Your task to perform on an android device: Clear all items from cart on ebay. Search for jbl charge 4 on ebay, select the first entry, add it to the cart, then select checkout. Image 0: 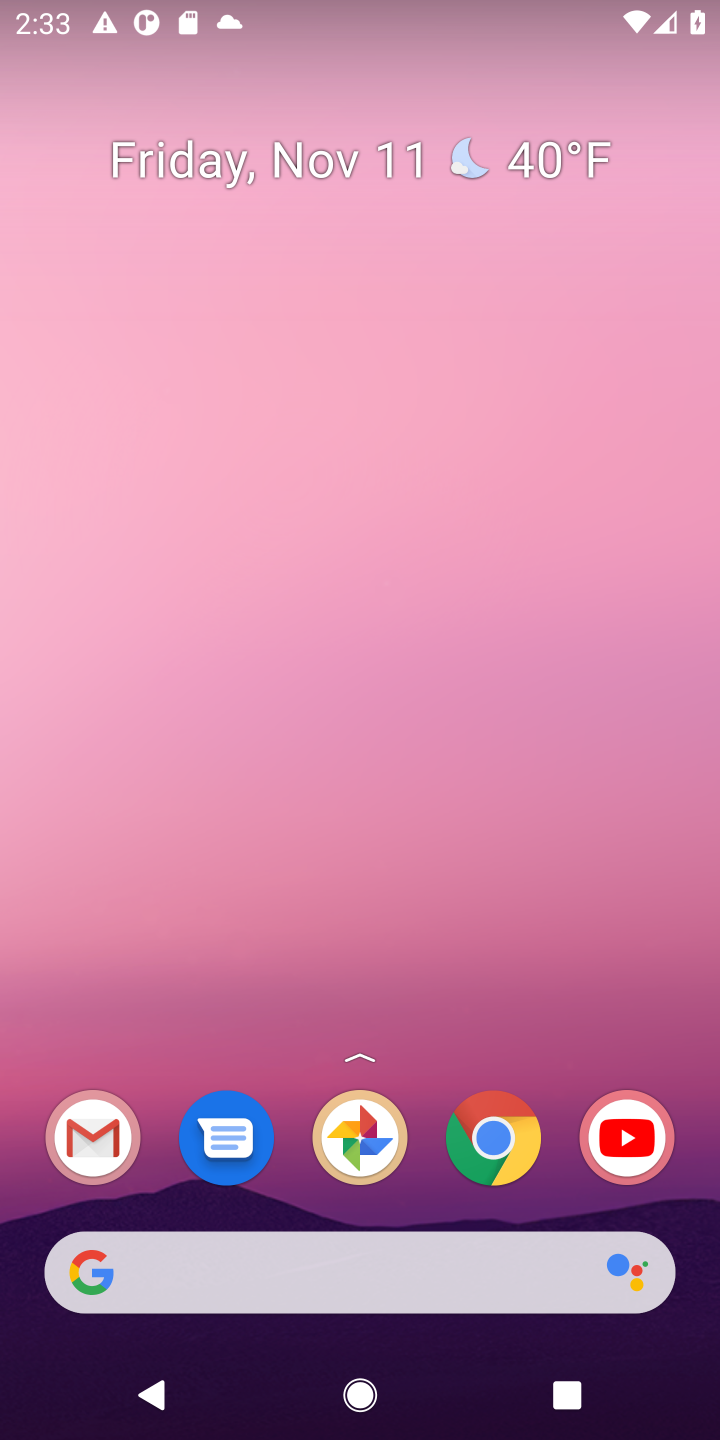
Step 0: click (497, 1138)
Your task to perform on an android device: Clear all items from cart on ebay. Search for jbl charge 4 on ebay, select the first entry, add it to the cart, then select checkout. Image 1: 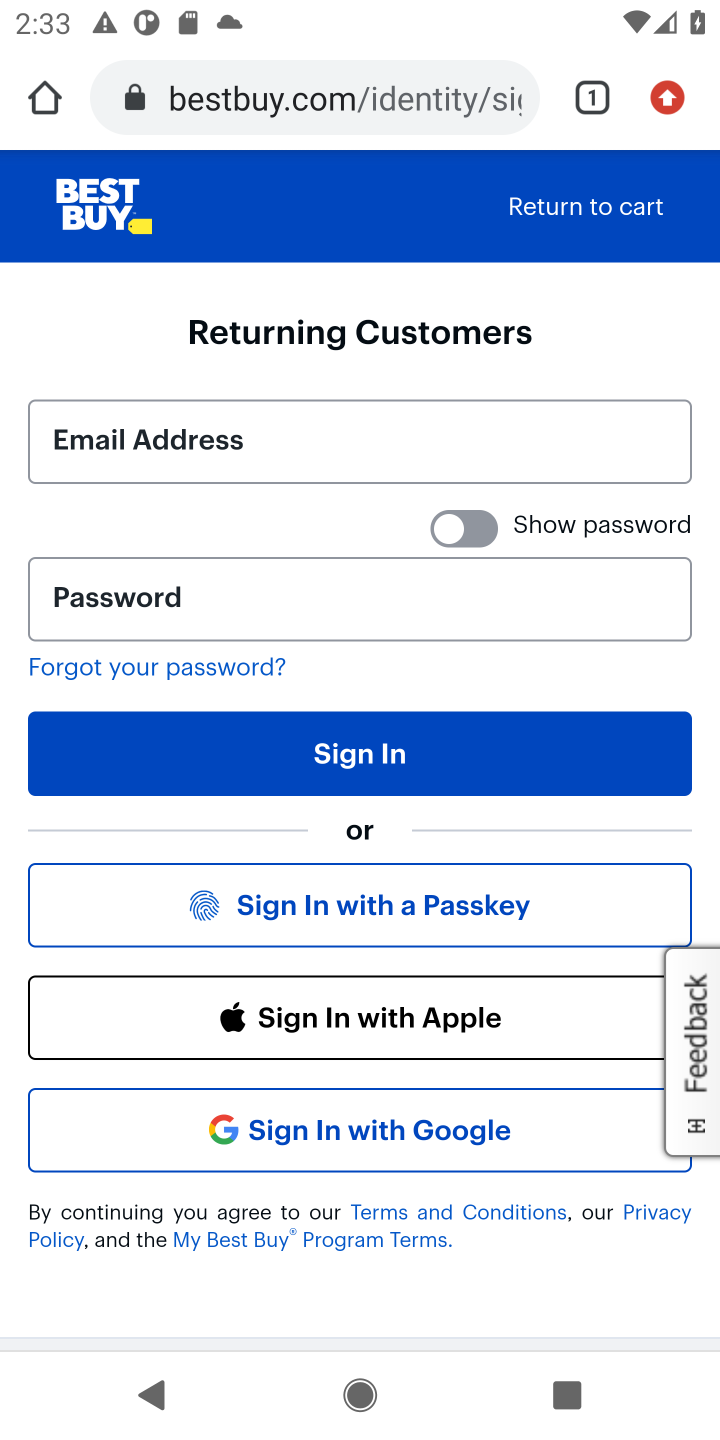
Step 1: click (467, 97)
Your task to perform on an android device: Clear all items from cart on ebay. Search for jbl charge 4 on ebay, select the first entry, add it to the cart, then select checkout. Image 2: 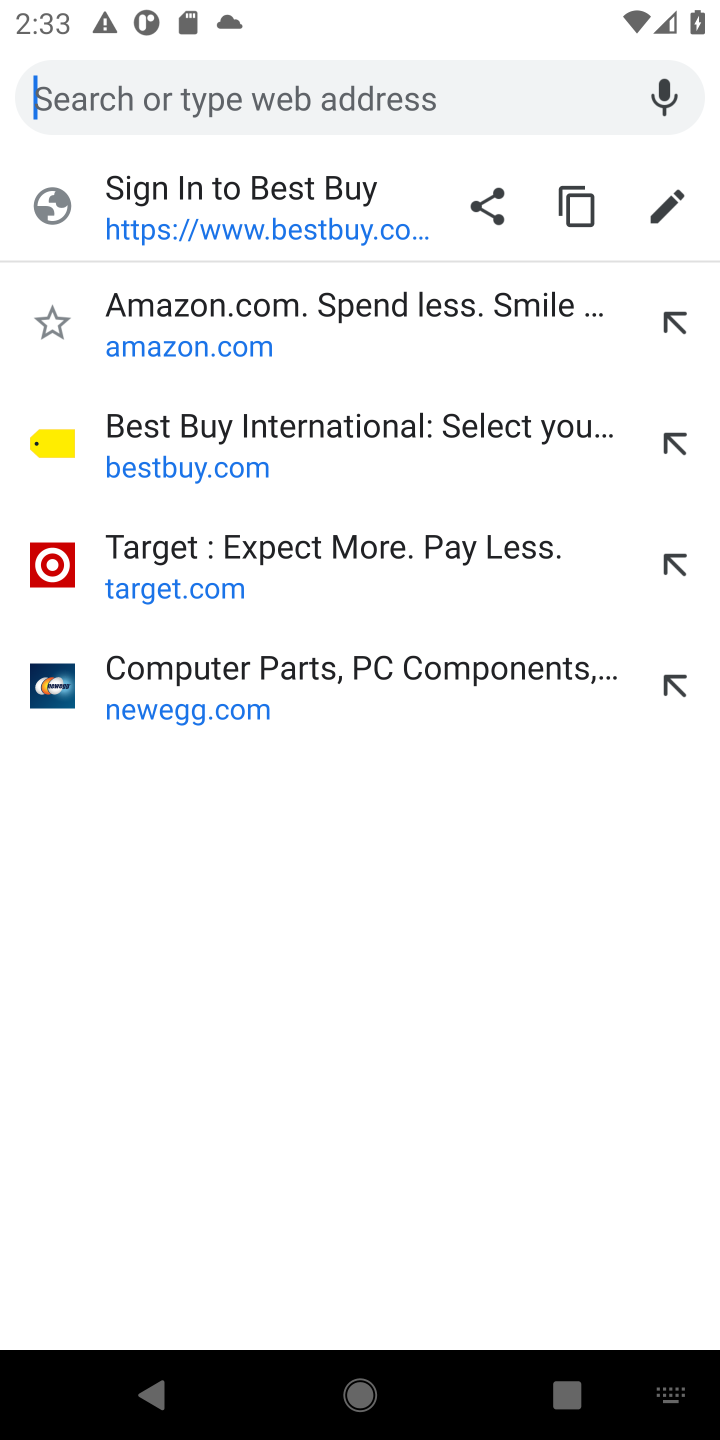
Step 2: type "ebay"
Your task to perform on an android device: Clear all items from cart on ebay. Search for jbl charge 4 on ebay, select the first entry, add it to the cart, then select checkout. Image 3: 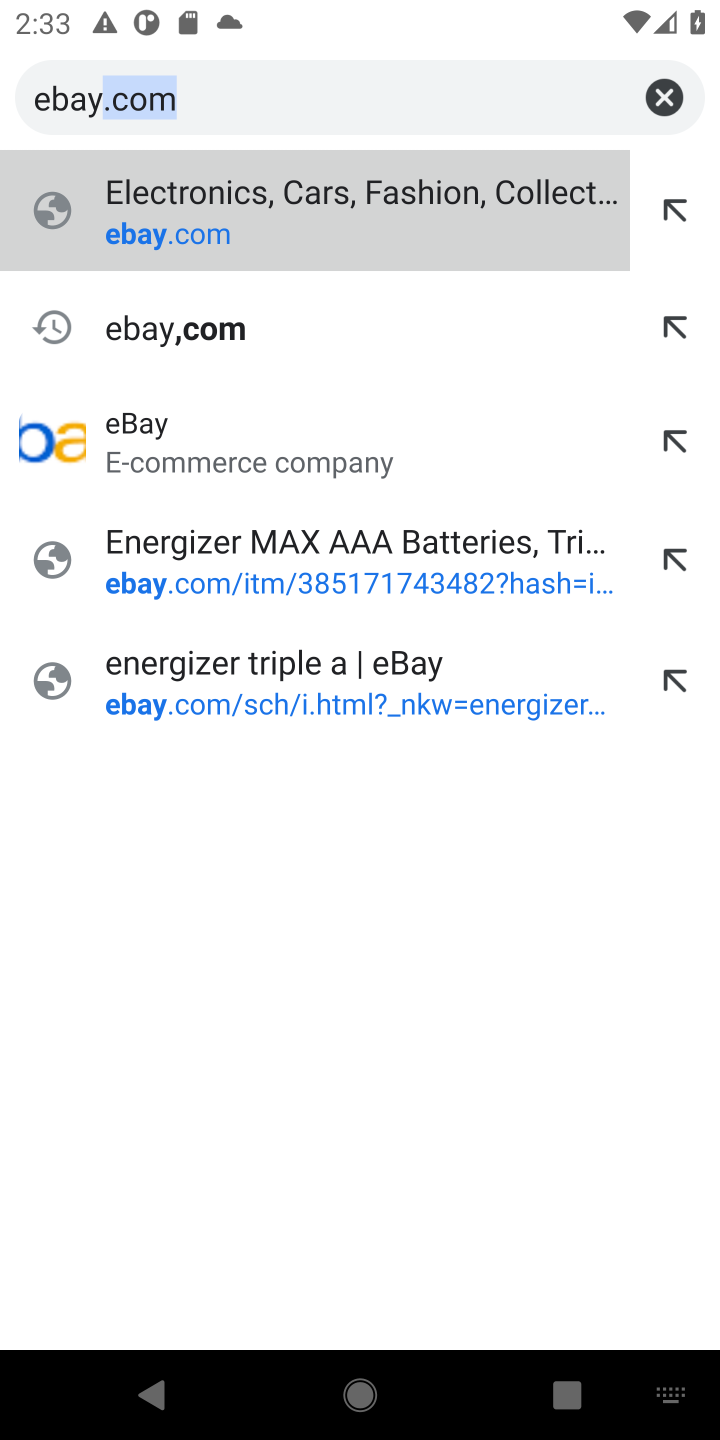
Step 3: press enter
Your task to perform on an android device: Clear all items from cart on ebay. Search for jbl charge 4 on ebay, select the first entry, add it to the cart, then select checkout. Image 4: 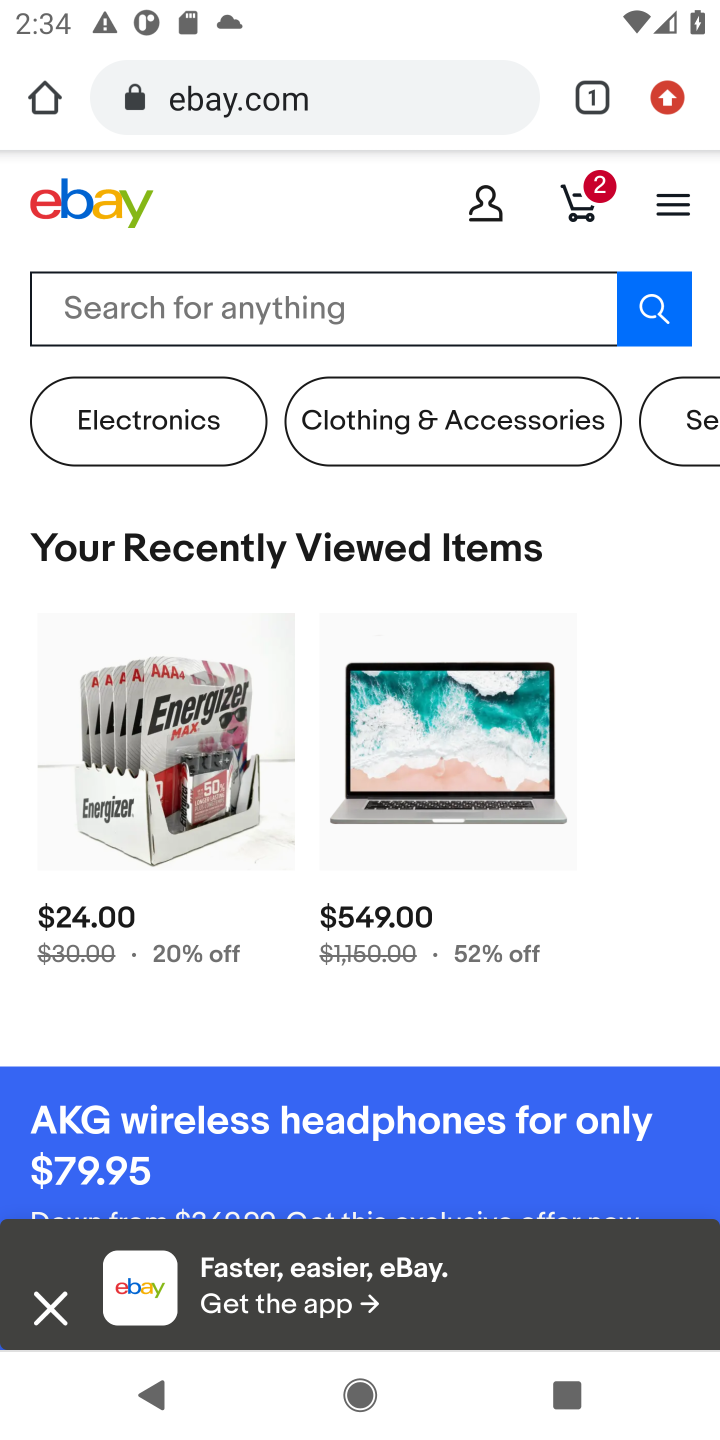
Step 4: click (584, 210)
Your task to perform on an android device: Clear all items from cart on ebay. Search for jbl charge 4 on ebay, select the first entry, add it to the cart, then select checkout. Image 5: 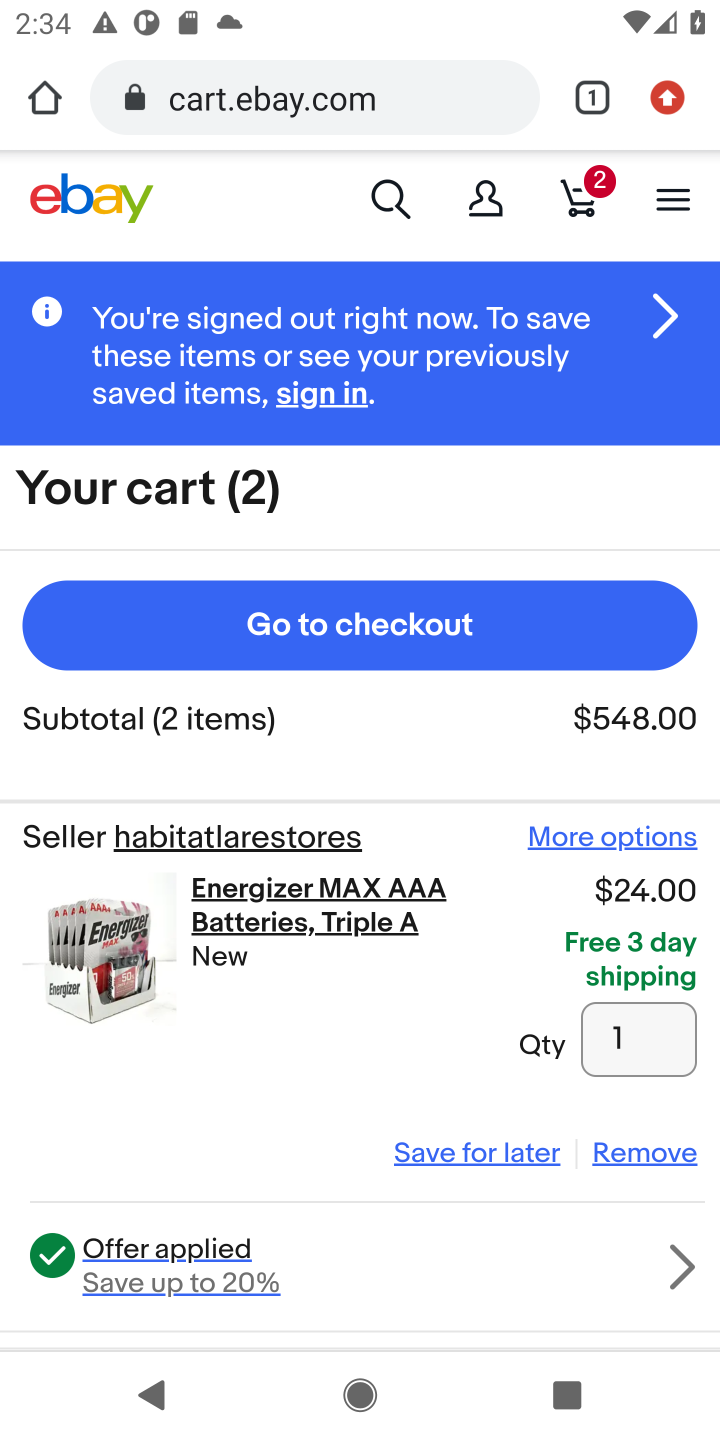
Step 5: click (644, 1151)
Your task to perform on an android device: Clear all items from cart on ebay. Search for jbl charge 4 on ebay, select the first entry, add it to the cart, then select checkout. Image 6: 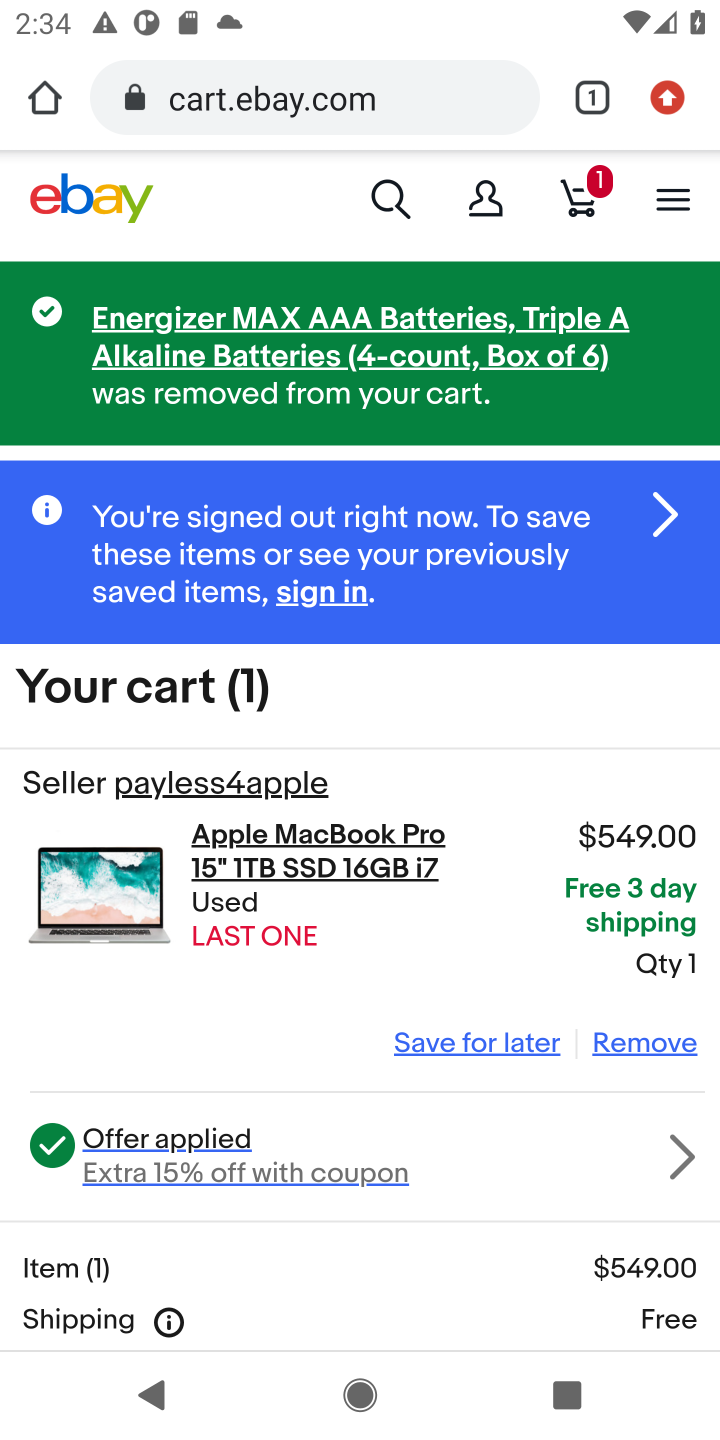
Step 6: click (650, 1040)
Your task to perform on an android device: Clear all items from cart on ebay. Search for jbl charge 4 on ebay, select the first entry, add it to the cart, then select checkout. Image 7: 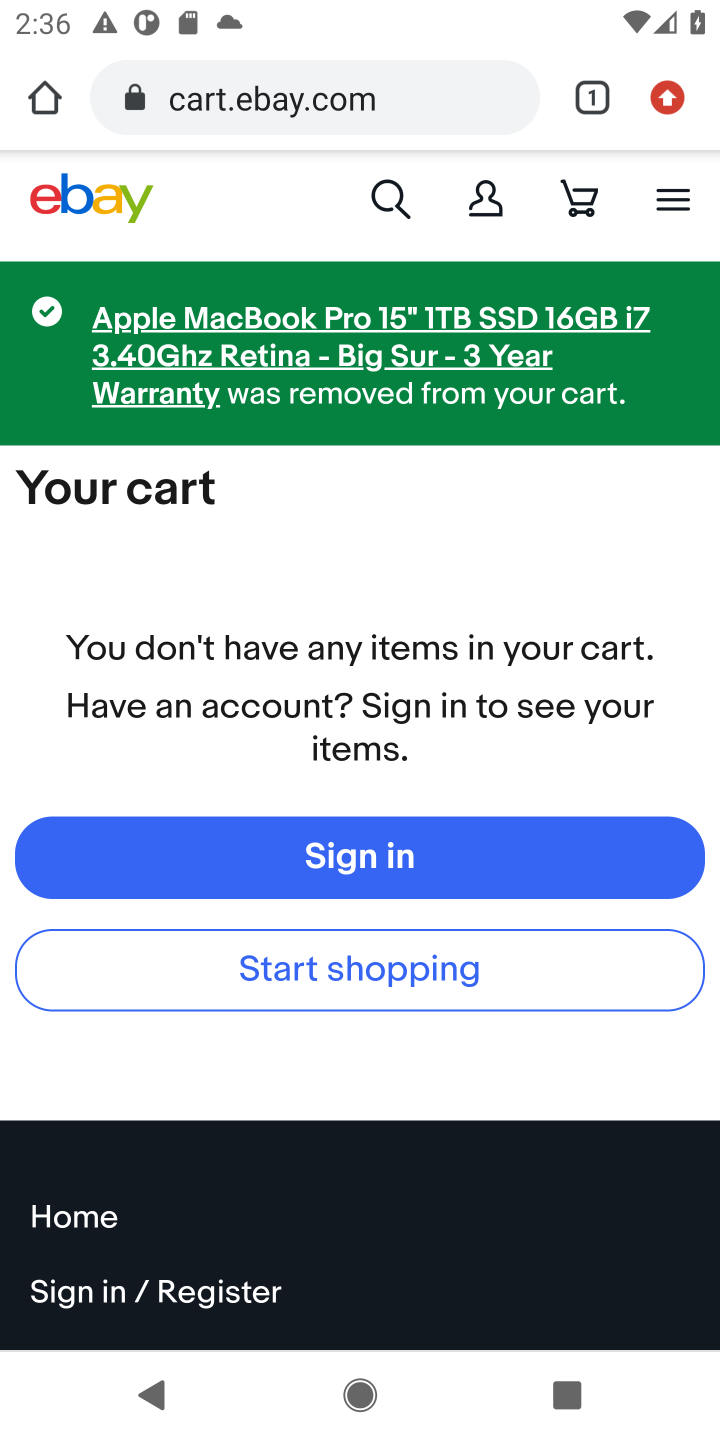
Step 7: click (391, 201)
Your task to perform on an android device: Clear all items from cart on ebay. Search for jbl charge 4 on ebay, select the first entry, add it to the cart, then select checkout. Image 8: 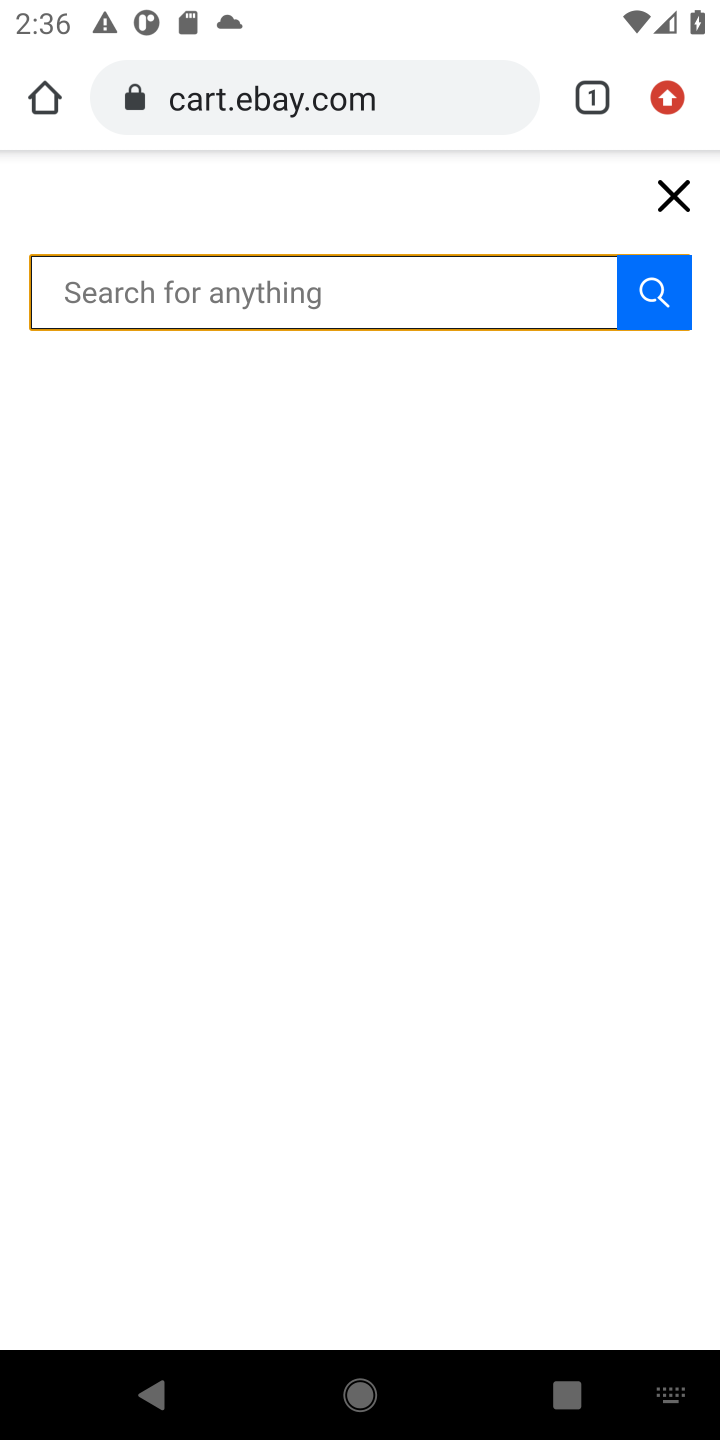
Step 8: type "jbl charge 4"
Your task to perform on an android device: Clear all items from cart on ebay. Search for jbl charge 4 on ebay, select the first entry, add it to the cart, then select checkout. Image 9: 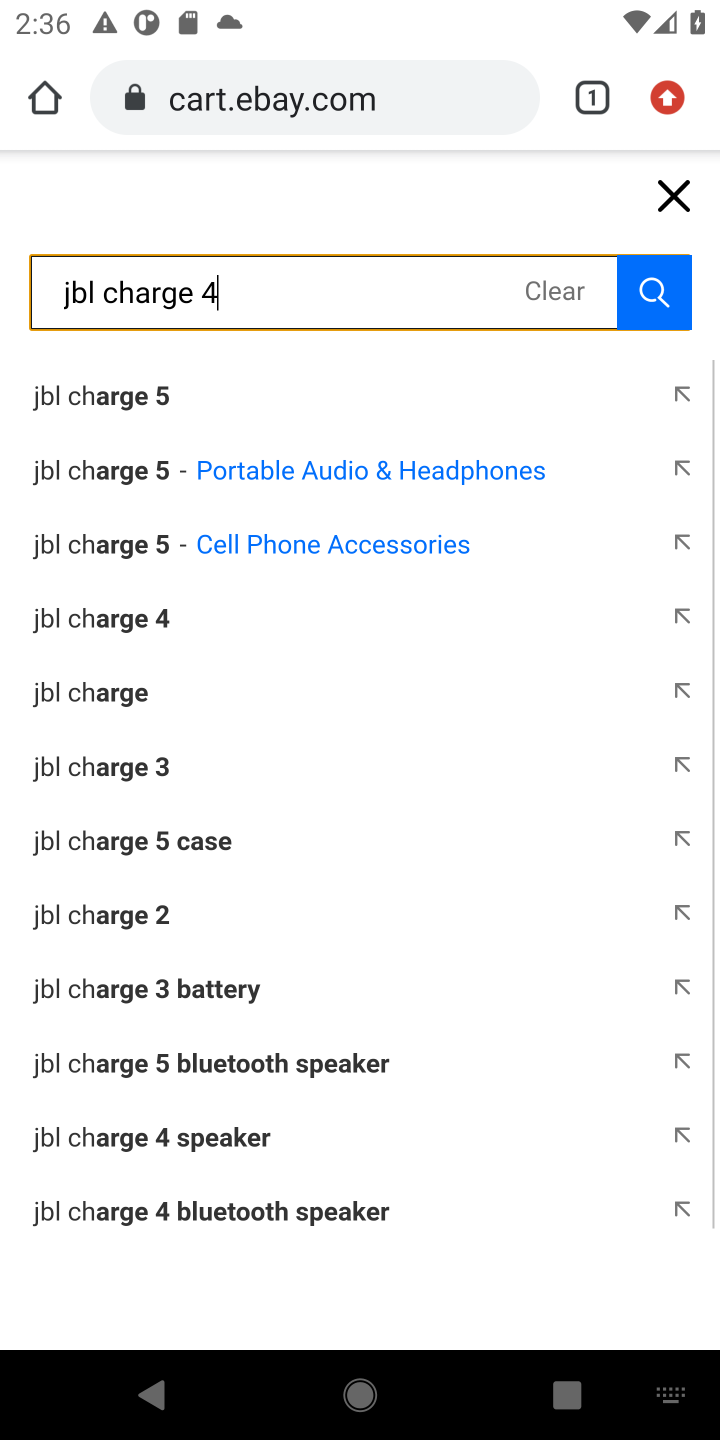
Step 9: press enter
Your task to perform on an android device: Clear all items from cart on ebay. Search for jbl charge 4 on ebay, select the first entry, add it to the cart, then select checkout. Image 10: 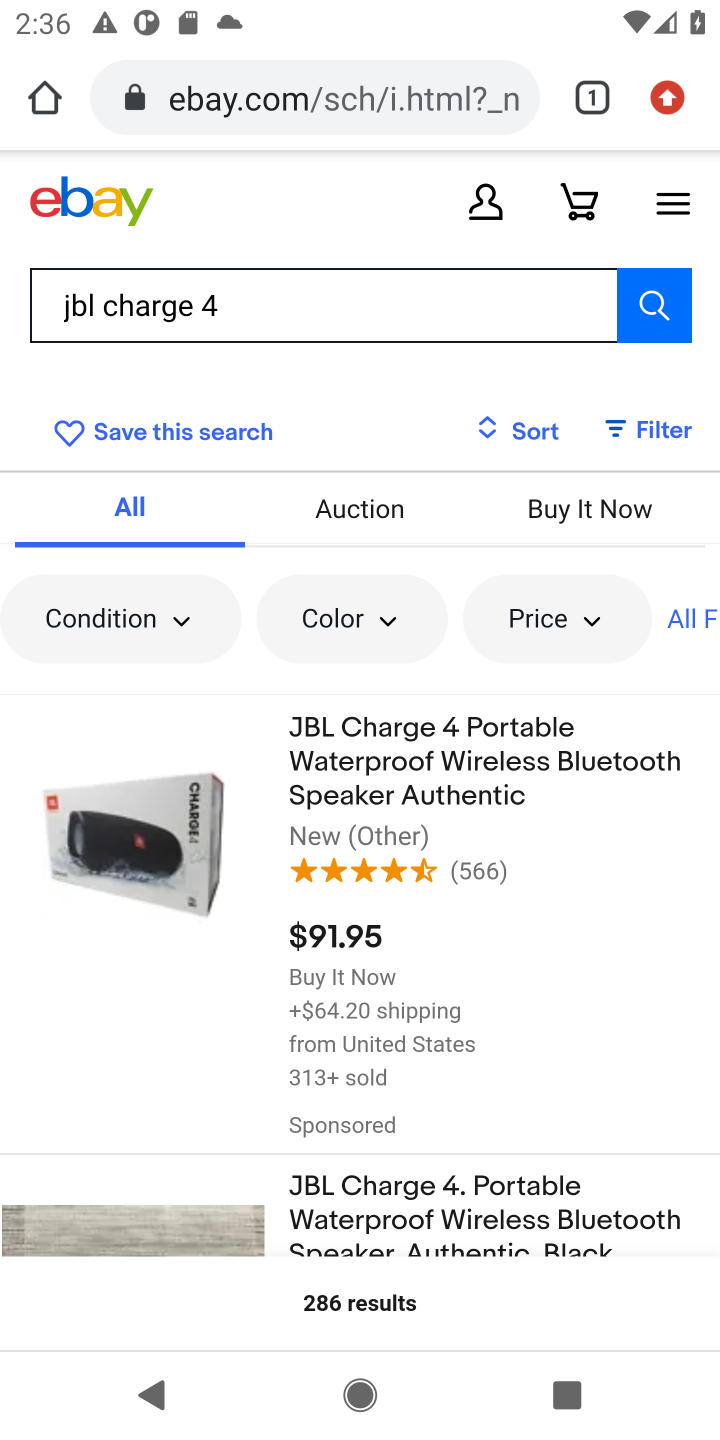
Step 10: click (160, 810)
Your task to perform on an android device: Clear all items from cart on ebay. Search for jbl charge 4 on ebay, select the first entry, add it to the cart, then select checkout. Image 11: 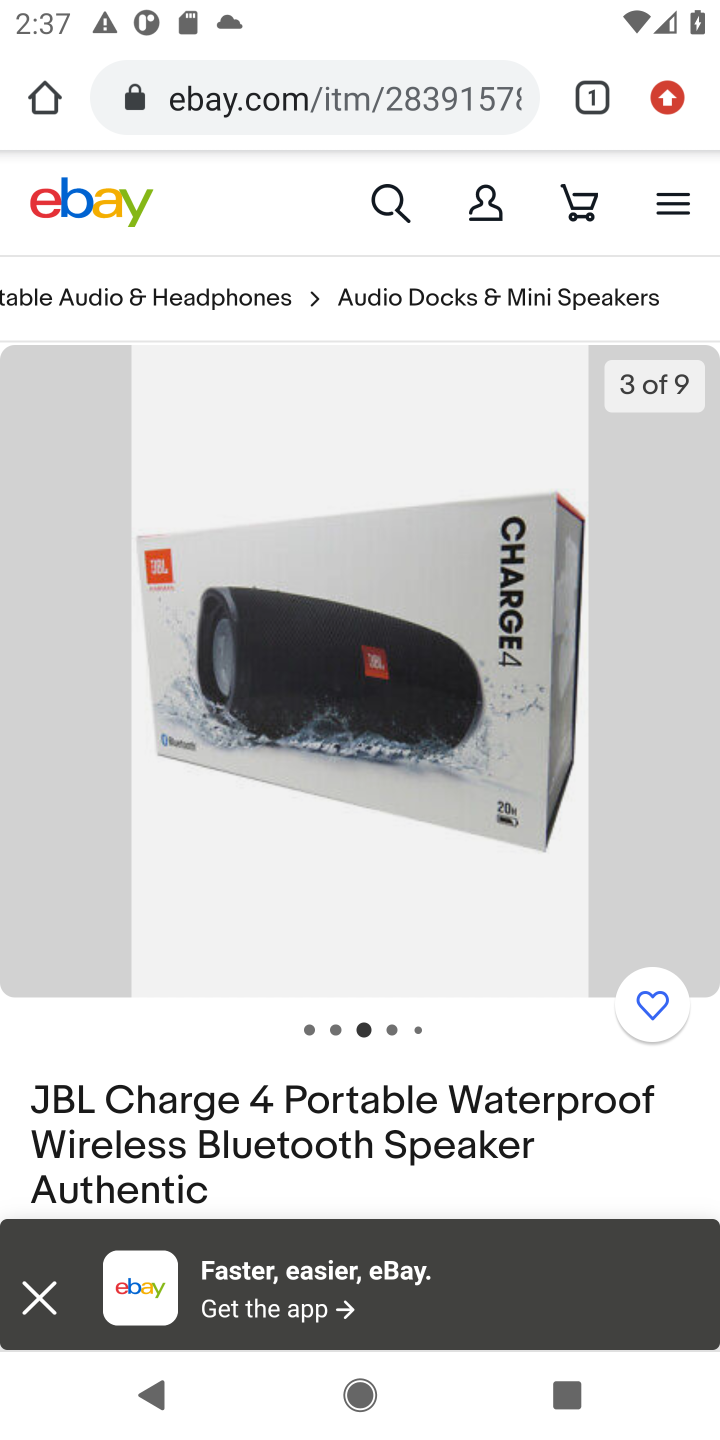
Step 11: click (155, 766)
Your task to perform on an android device: Clear all items from cart on ebay. Search for jbl charge 4 on ebay, select the first entry, add it to the cart, then select checkout. Image 12: 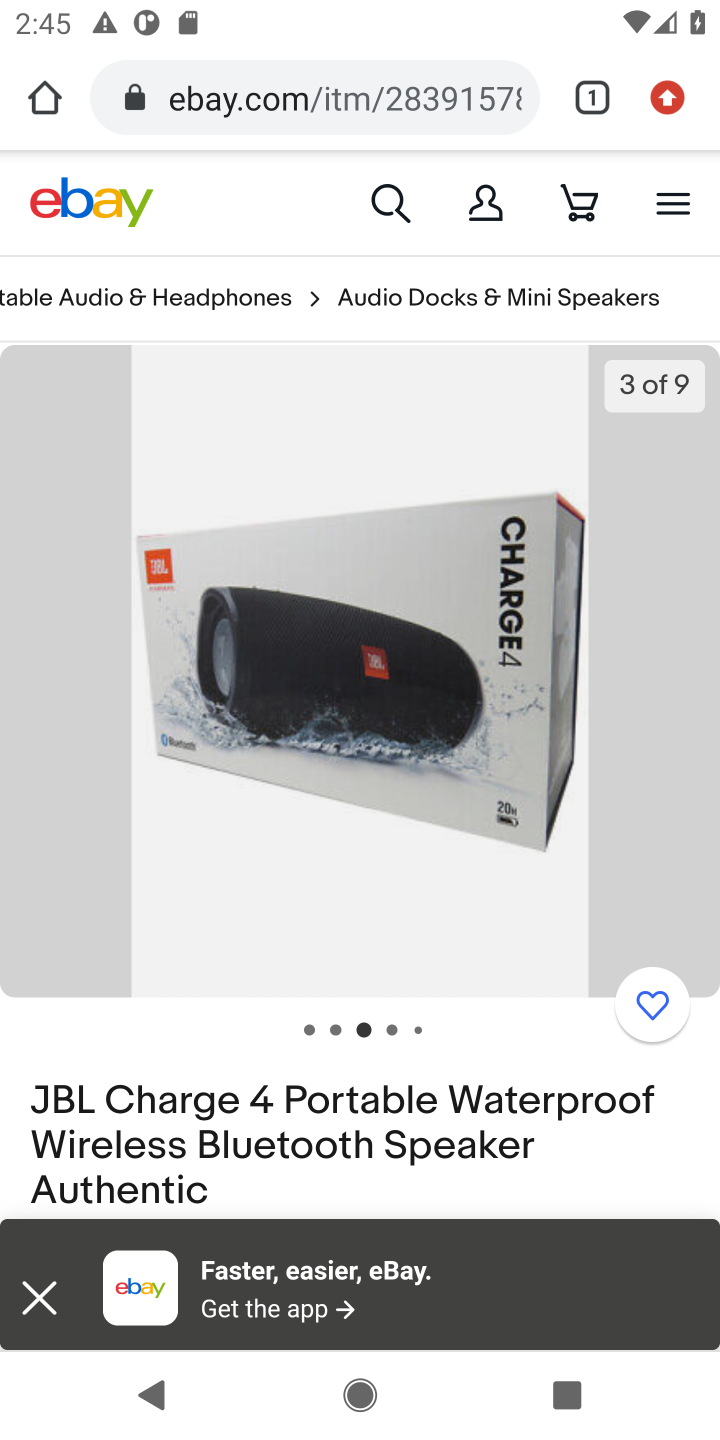
Step 12: click (517, 624)
Your task to perform on an android device: Clear all items from cart on ebay. Search for jbl charge 4 on ebay, select the first entry, add it to the cart, then select checkout. Image 13: 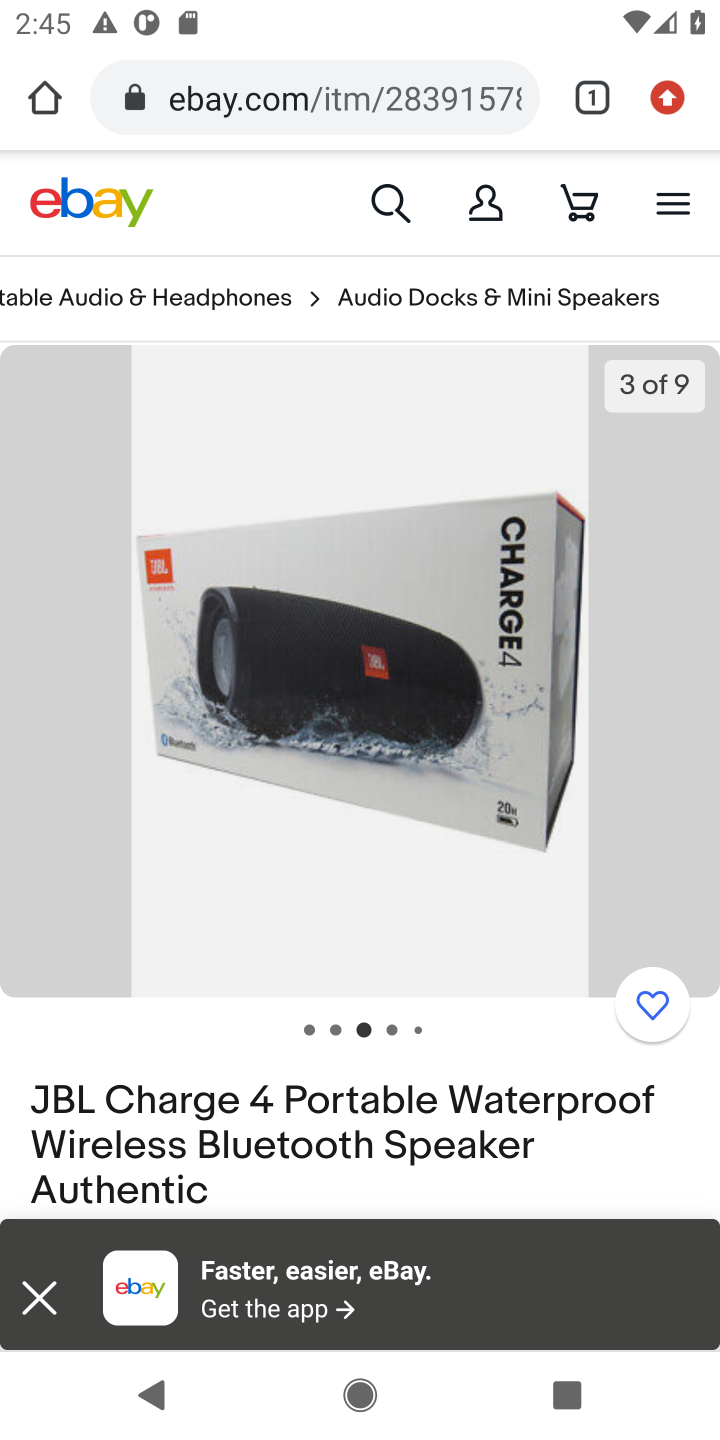
Step 13: drag from (563, 824) to (467, 353)
Your task to perform on an android device: Clear all items from cart on ebay. Search for jbl charge 4 on ebay, select the first entry, add it to the cart, then select checkout. Image 14: 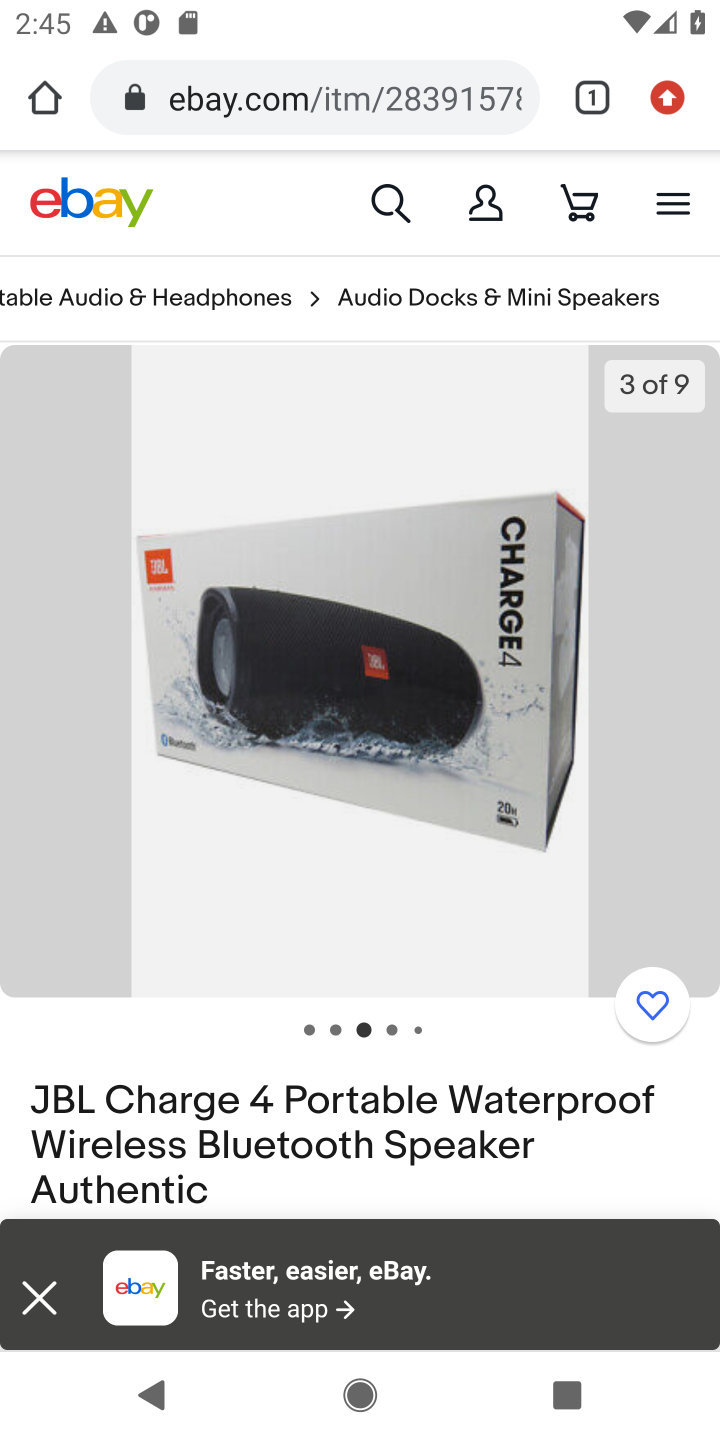
Step 14: drag from (445, 772) to (430, 361)
Your task to perform on an android device: Clear all items from cart on ebay. Search for jbl charge 4 on ebay, select the first entry, add it to the cart, then select checkout. Image 15: 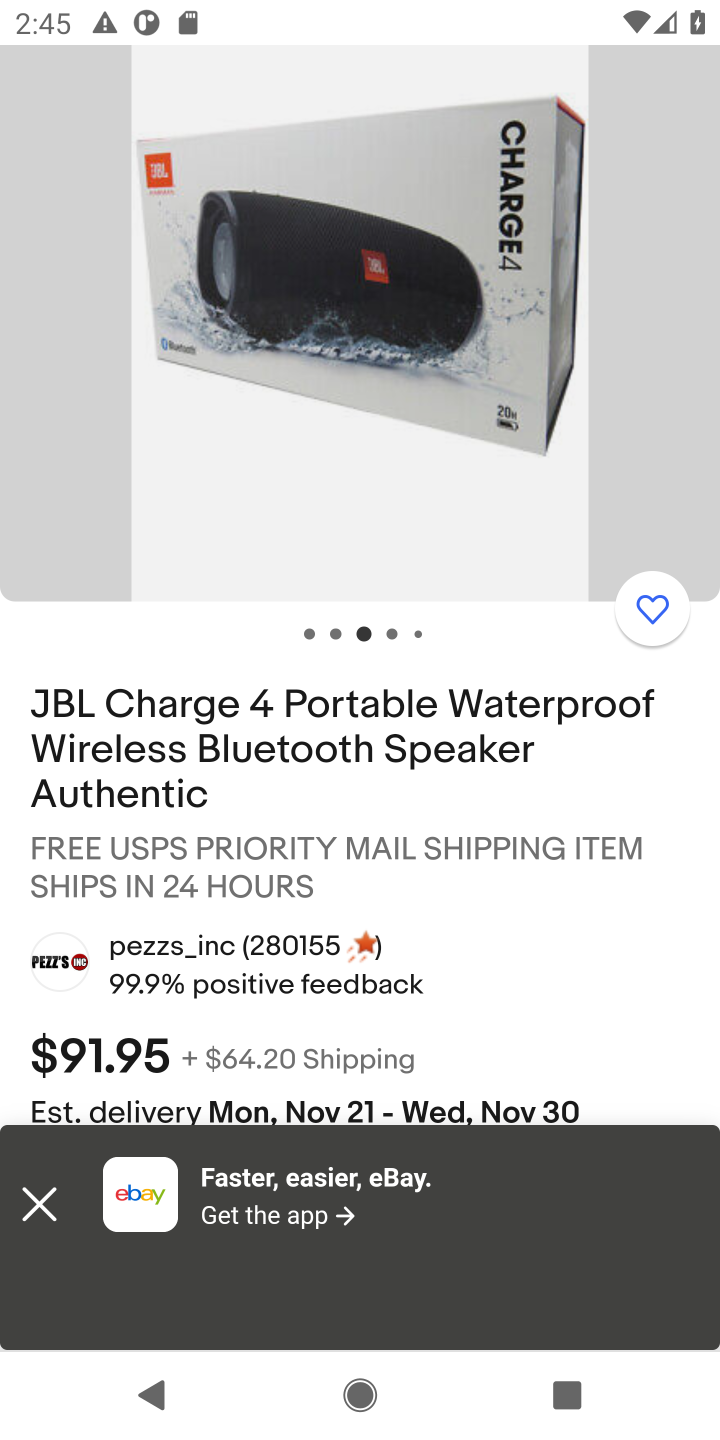
Step 15: drag from (543, 922) to (528, 545)
Your task to perform on an android device: Clear all items from cart on ebay. Search for jbl charge 4 on ebay, select the first entry, add it to the cart, then select checkout. Image 16: 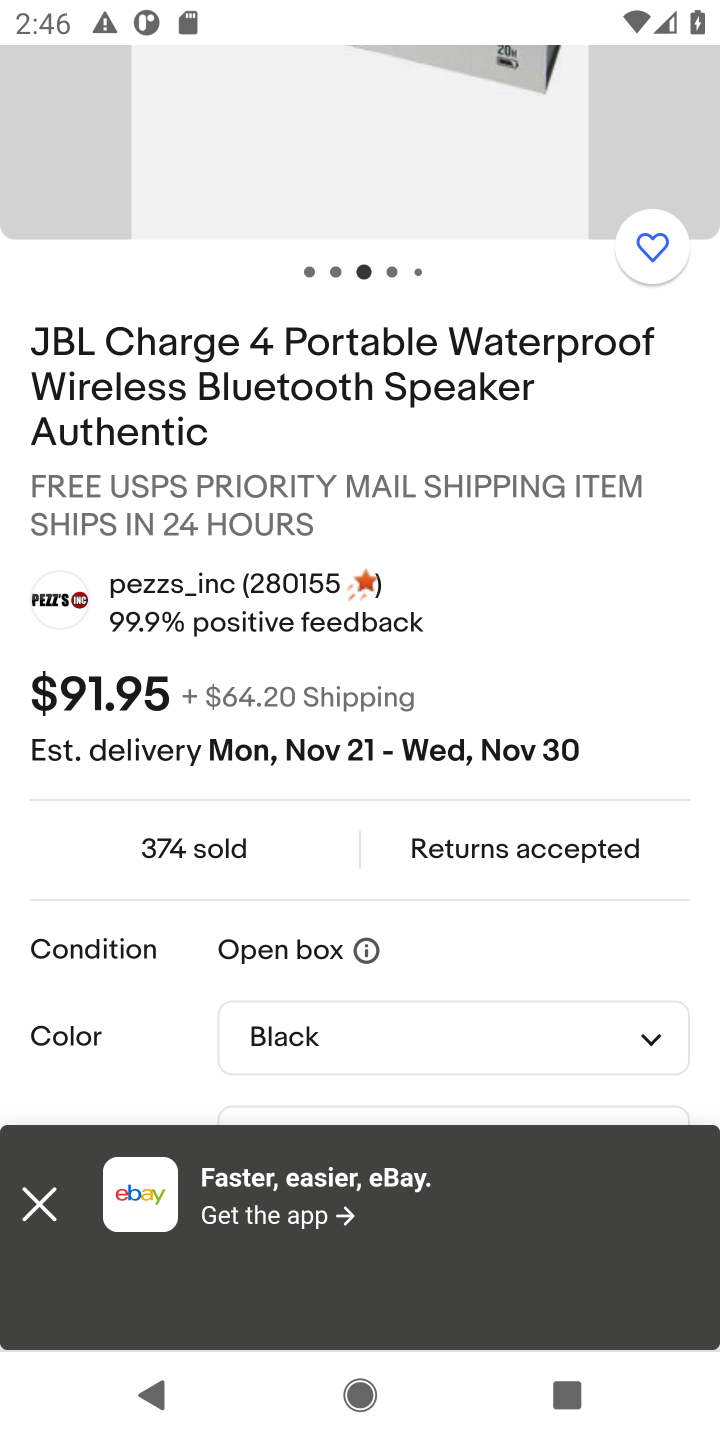
Step 16: press back button
Your task to perform on an android device: Clear all items from cart on ebay. Search for jbl charge 4 on ebay, select the first entry, add it to the cart, then select checkout. Image 17: 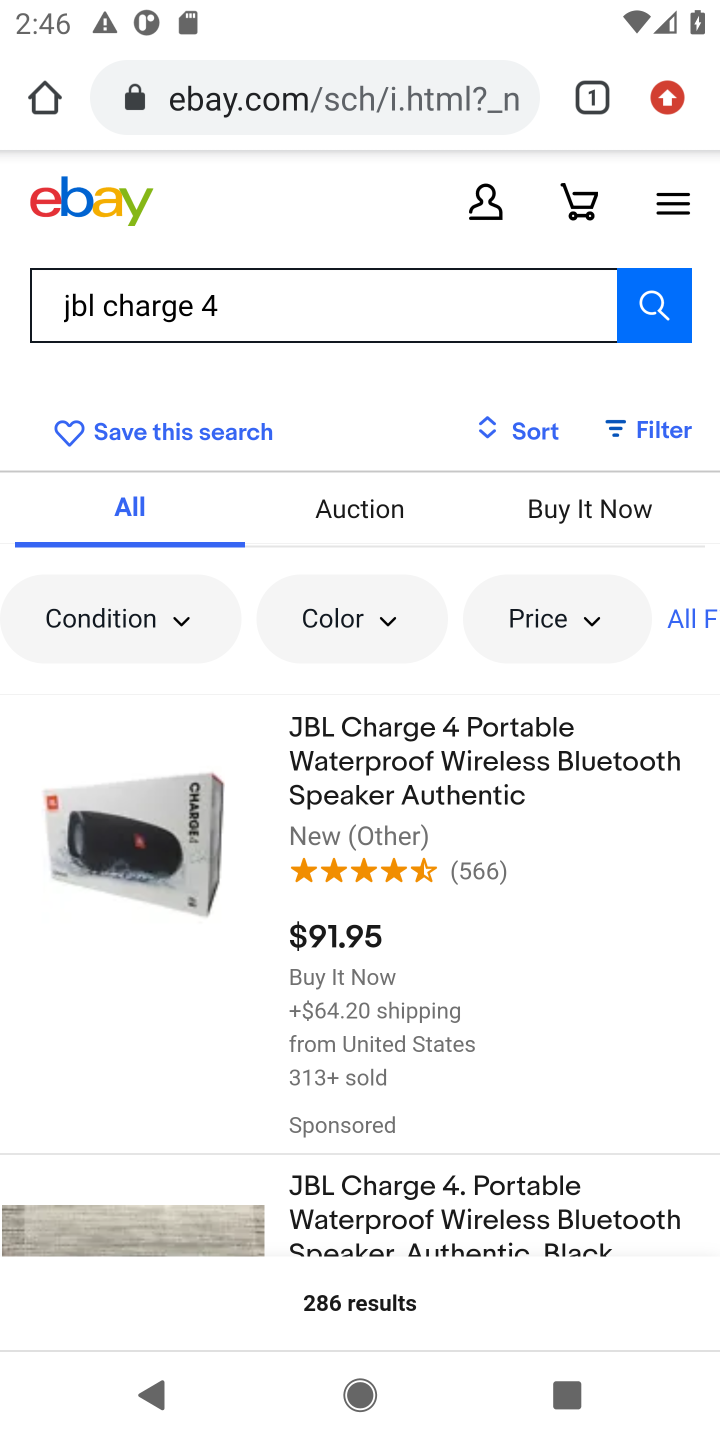
Step 17: click (193, 824)
Your task to perform on an android device: Clear all items from cart on ebay. Search for jbl charge 4 on ebay, select the first entry, add it to the cart, then select checkout. Image 18: 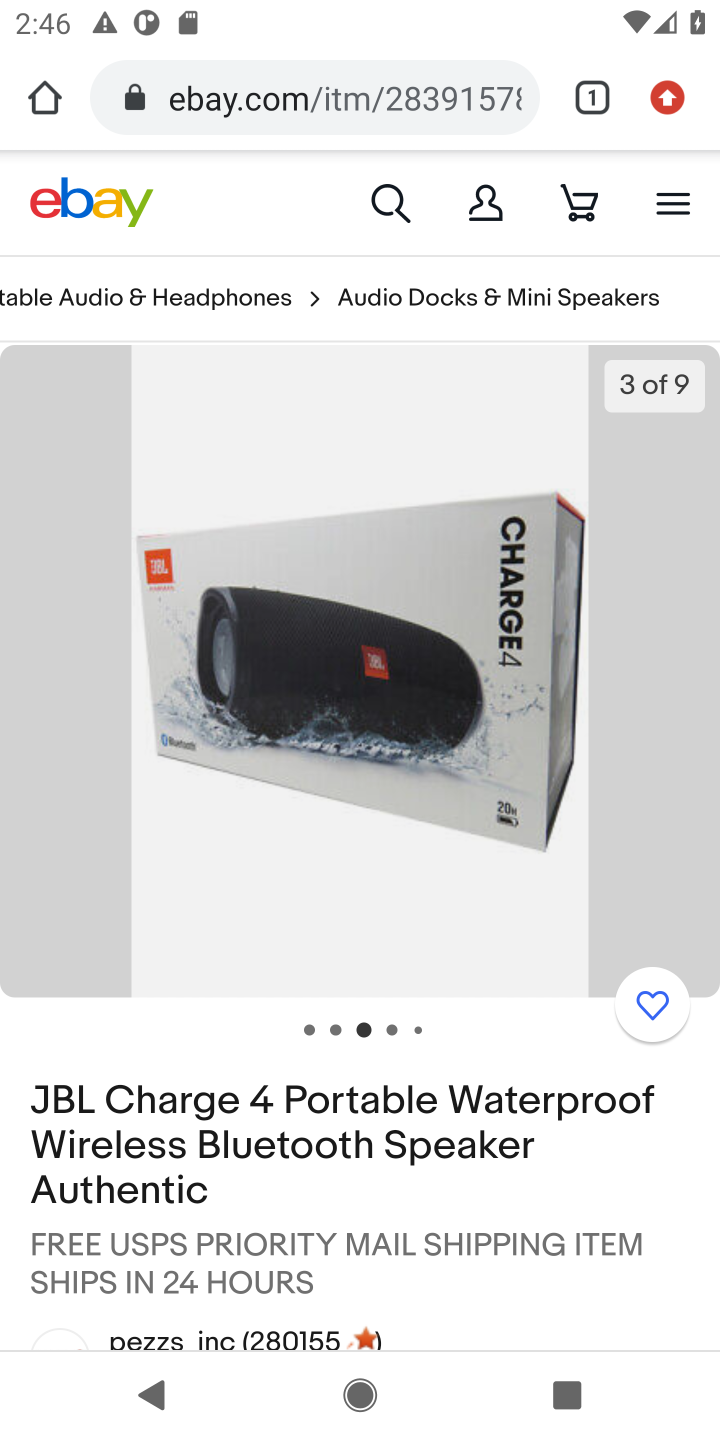
Step 18: drag from (373, 1098) to (444, 653)
Your task to perform on an android device: Clear all items from cart on ebay. Search for jbl charge 4 on ebay, select the first entry, add it to the cart, then select checkout. Image 19: 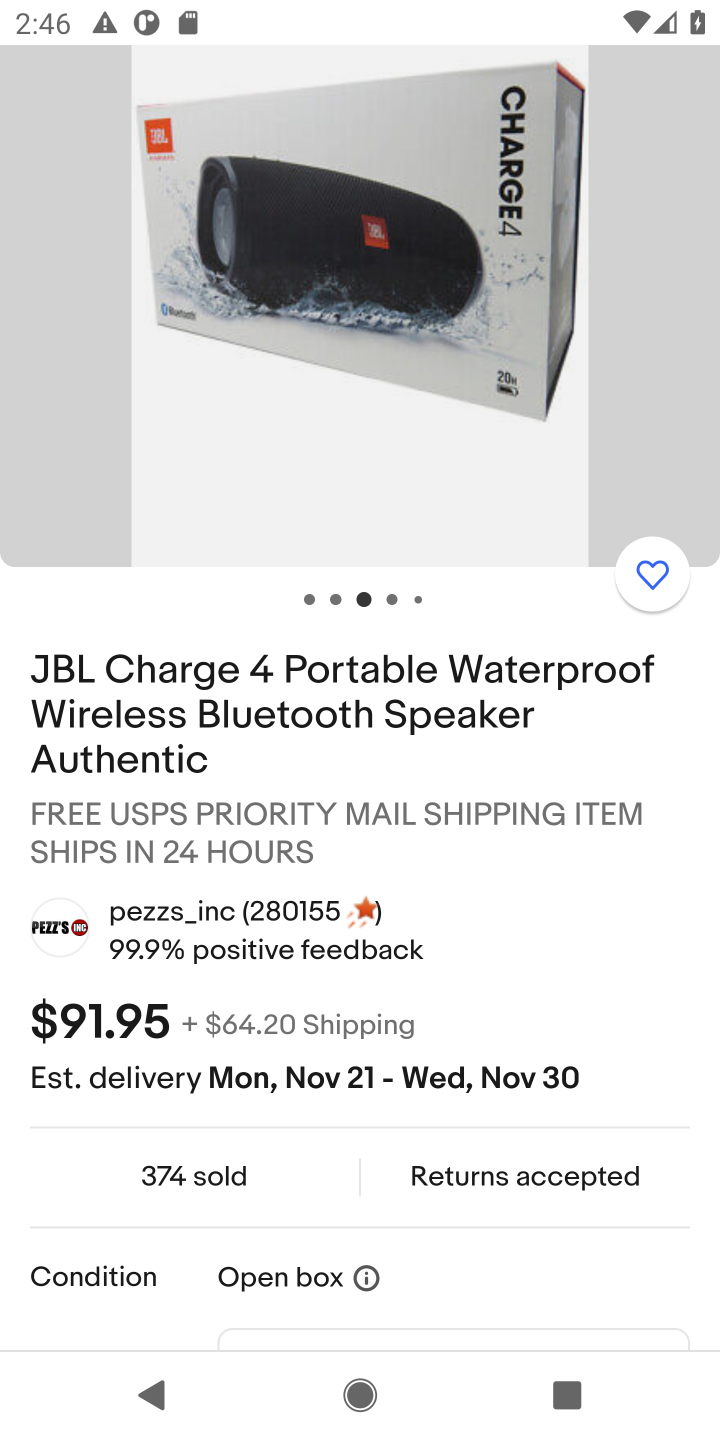
Step 19: drag from (457, 1175) to (491, 741)
Your task to perform on an android device: Clear all items from cart on ebay. Search for jbl charge 4 on ebay, select the first entry, add it to the cart, then select checkout. Image 20: 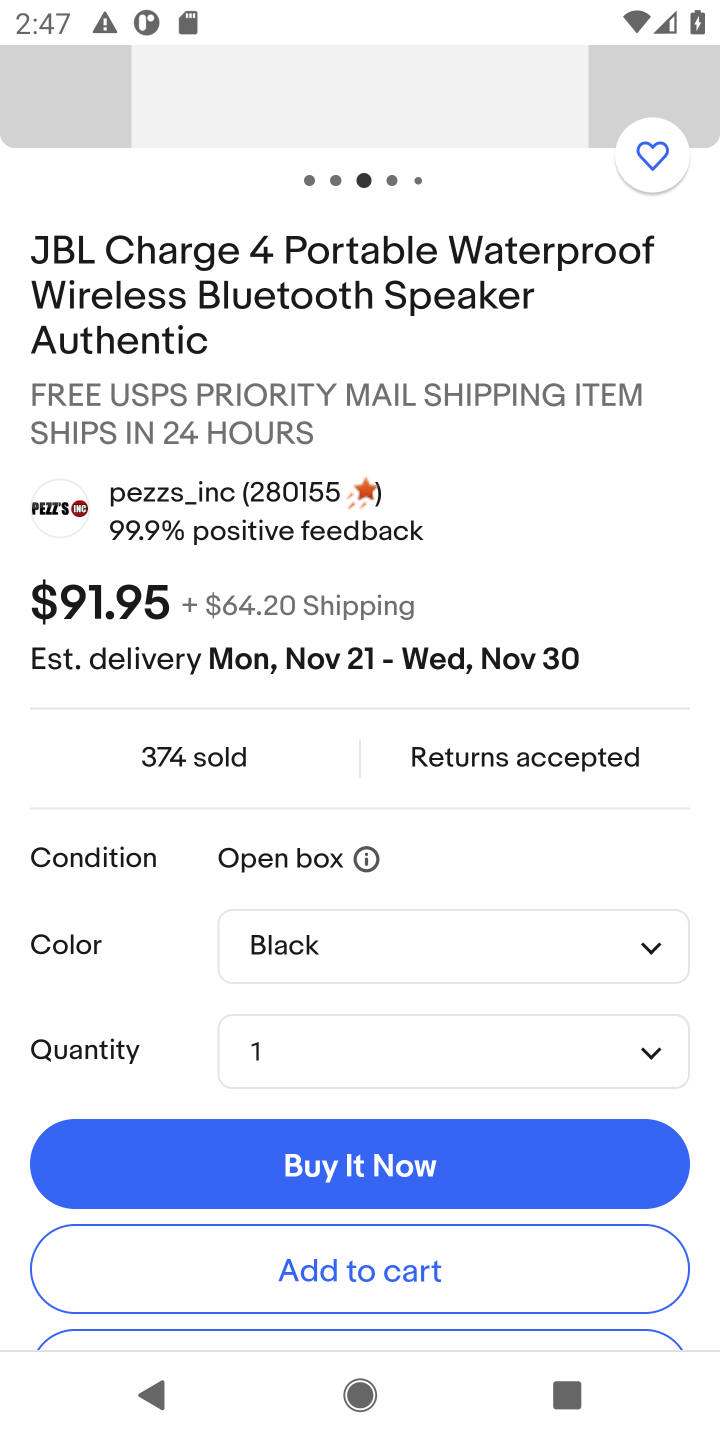
Step 20: click (386, 1267)
Your task to perform on an android device: Clear all items from cart on ebay. Search for jbl charge 4 on ebay, select the first entry, add it to the cart, then select checkout. Image 21: 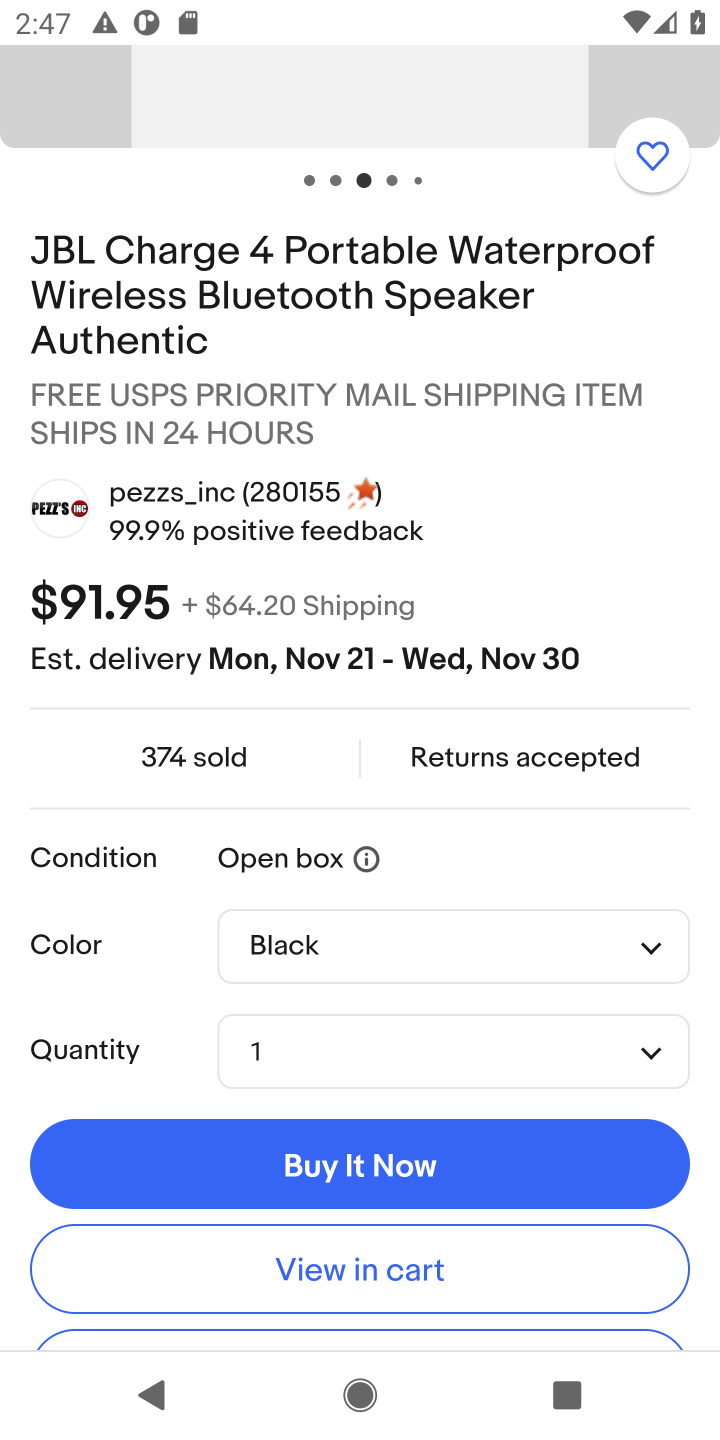
Step 21: click (392, 1263)
Your task to perform on an android device: Clear all items from cart on ebay. Search for jbl charge 4 on ebay, select the first entry, add it to the cart, then select checkout. Image 22: 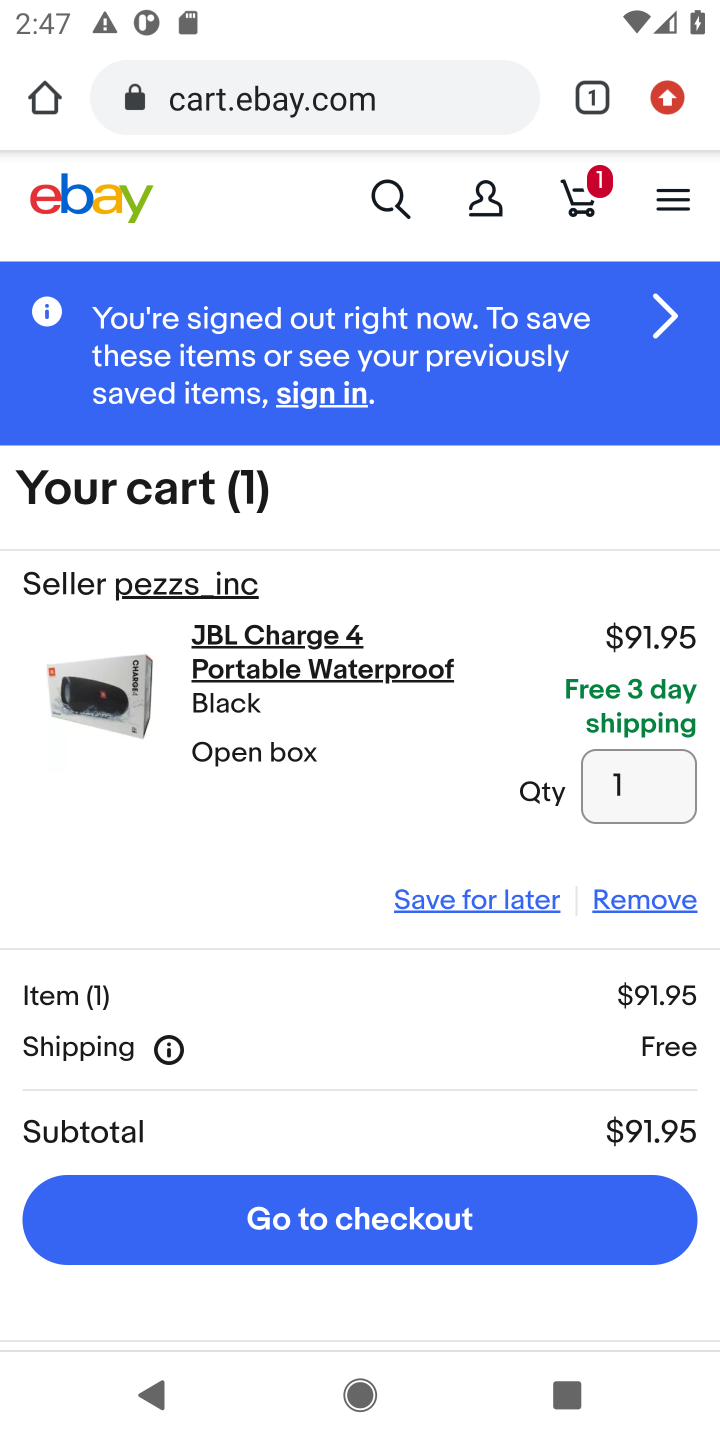
Step 22: click (423, 1217)
Your task to perform on an android device: Clear all items from cart on ebay. Search for jbl charge 4 on ebay, select the first entry, add it to the cart, then select checkout. Image 23: 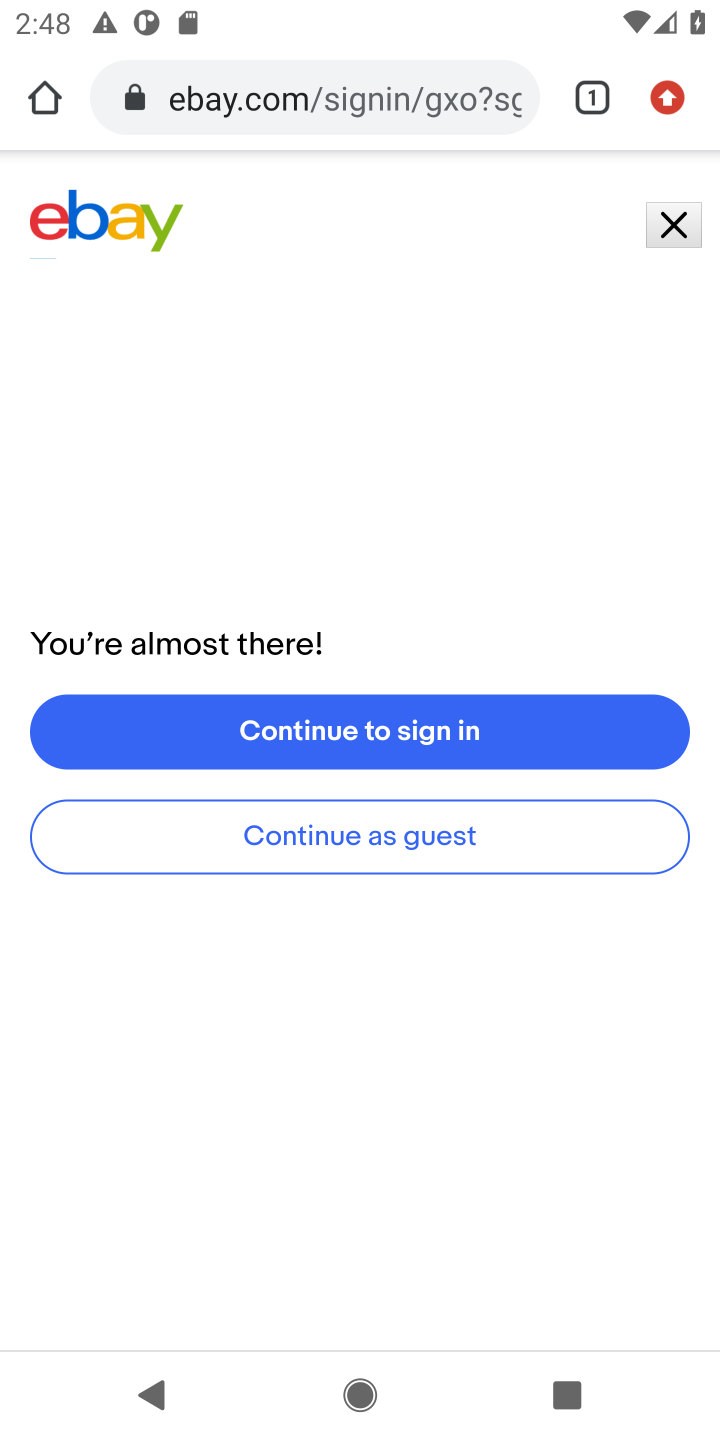
Step 23: press home button
Your task to perform on an android device: Clear all items from cart on ebay. Search for jbl charge 4 on ebay, select the first entry, add it to the cart, then select checkout. Image 24: 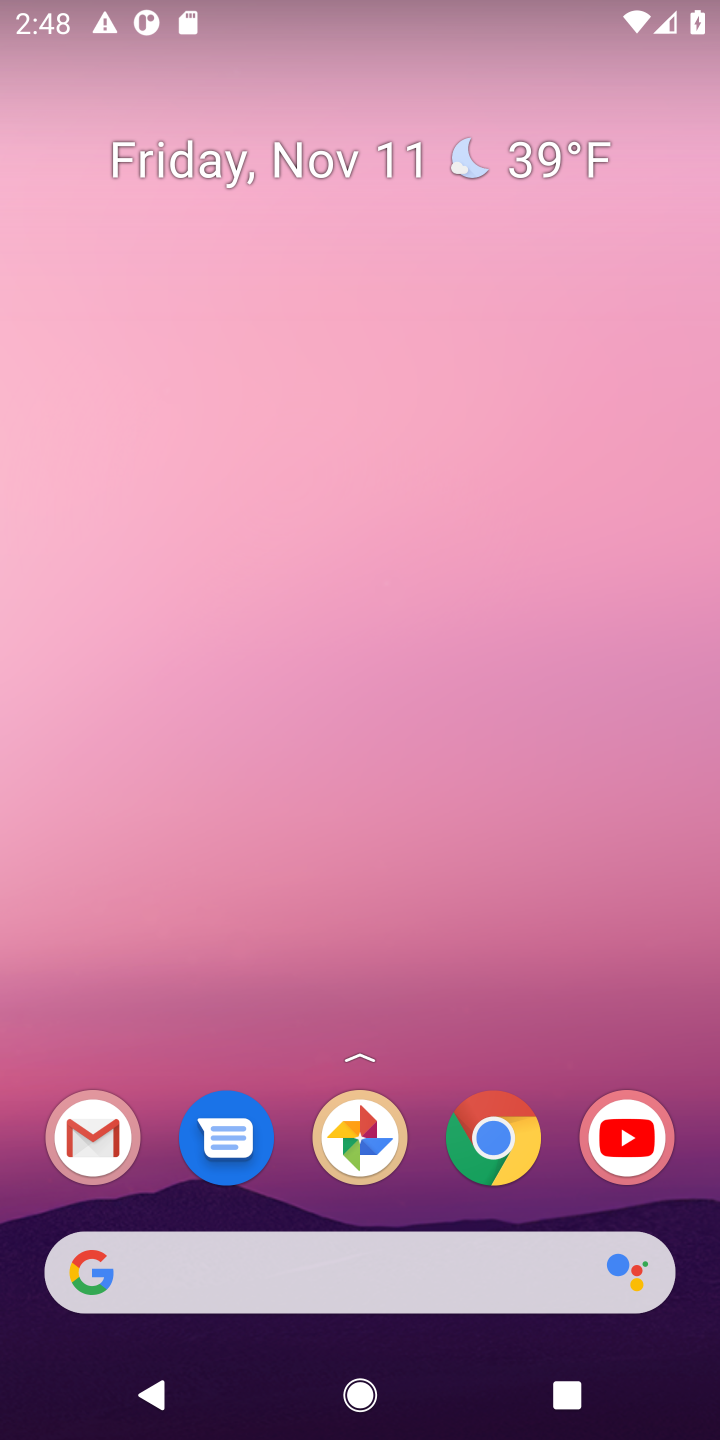
Step 24: click (487, 1152)
Your task to perform on an android device: Clear all items from cart on ebay. Search for jbl charge 4 on ebay, select the first entry, add it to the cart, then select checkout. Image 25: 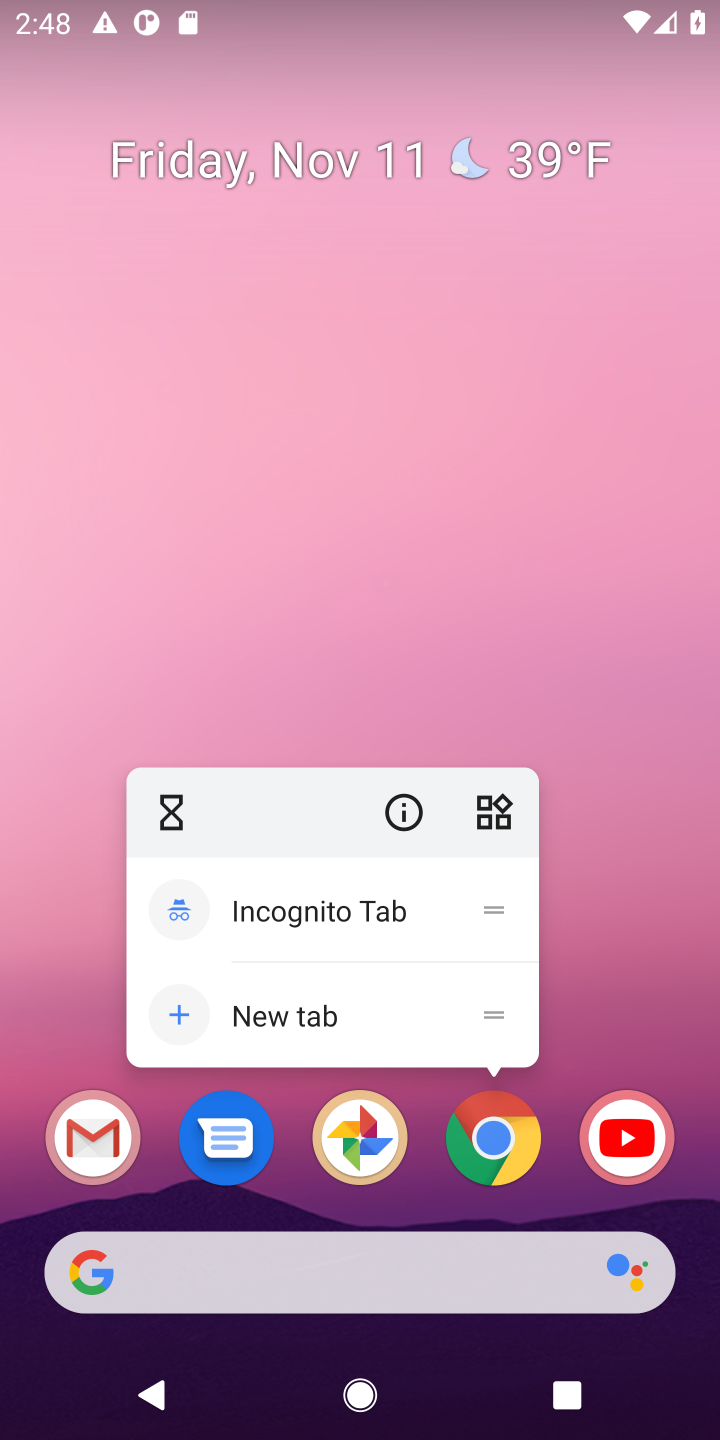
Step 25: click (487, 1151)
Your task to perform on an android device: Clear all items from cart on ebay. Search for jbl charge 4 on ebay, select the first entry, add it to the cart, then select checkout. Image 26: 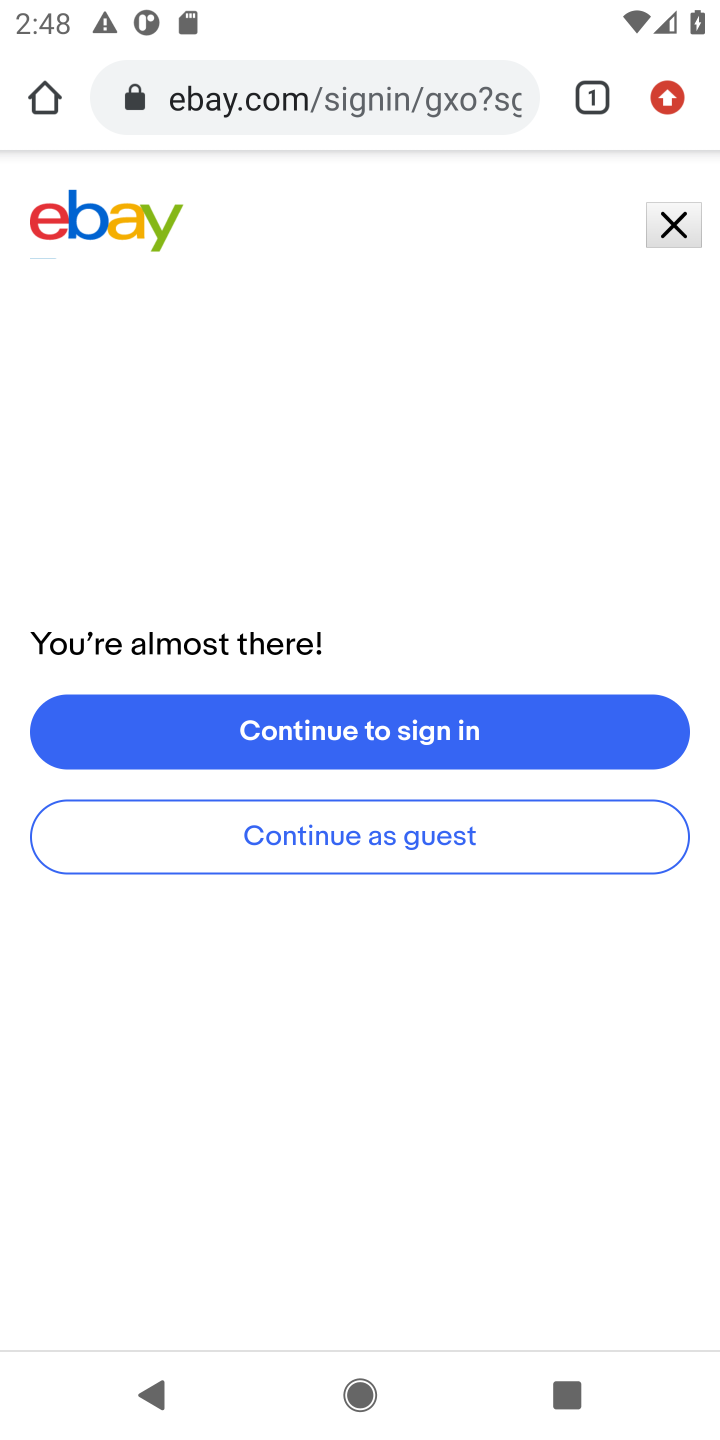
Step 26: click (675, 221)
Your task to perform on an android device: Clear all items from cart on ebay. Search for jbl charge 4 on ebay, select the first entry, add it to the cart, then select checkout. Image 27: 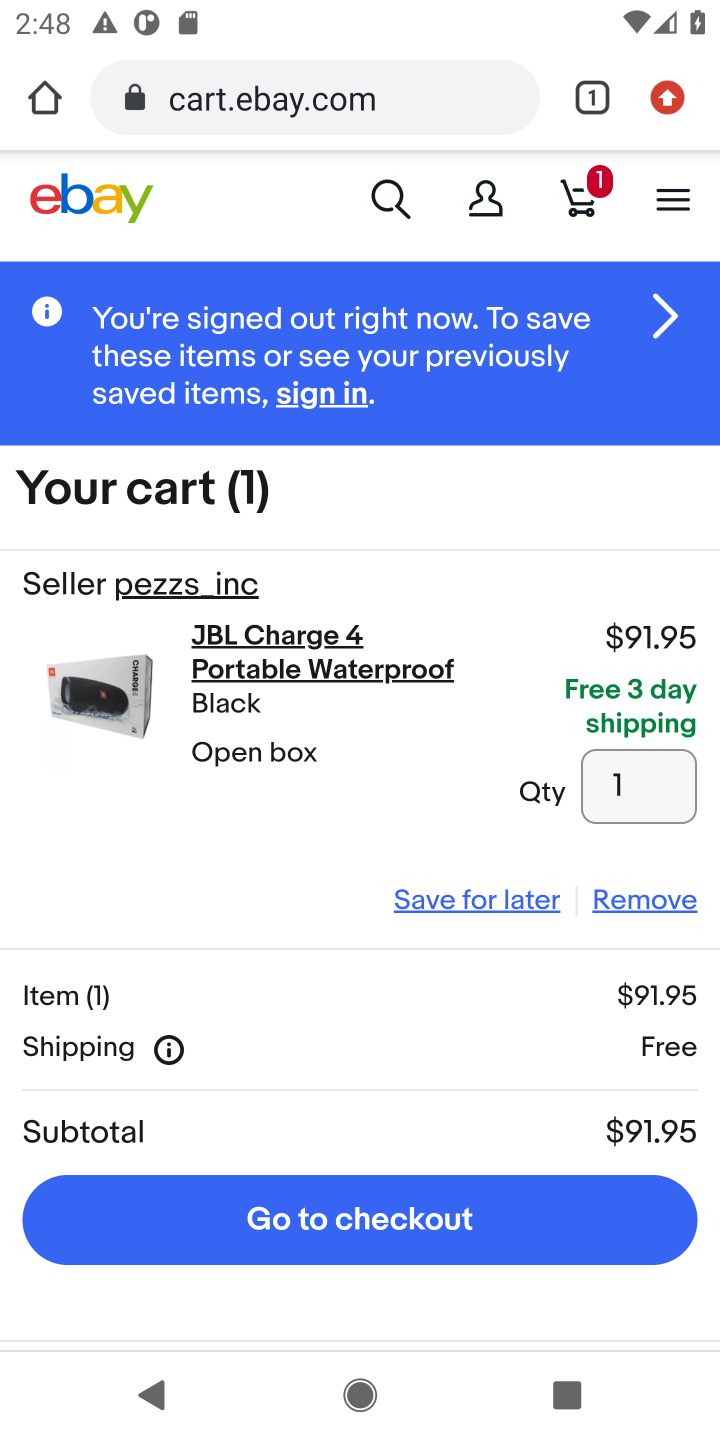
Step 27: click (410, 1226)
Your task to perform on an android device: Clear all items from cart on ebay. Search for jbl charge 4 on ebay, select the first entry, add it to the cart, then select checkout. Image 28: 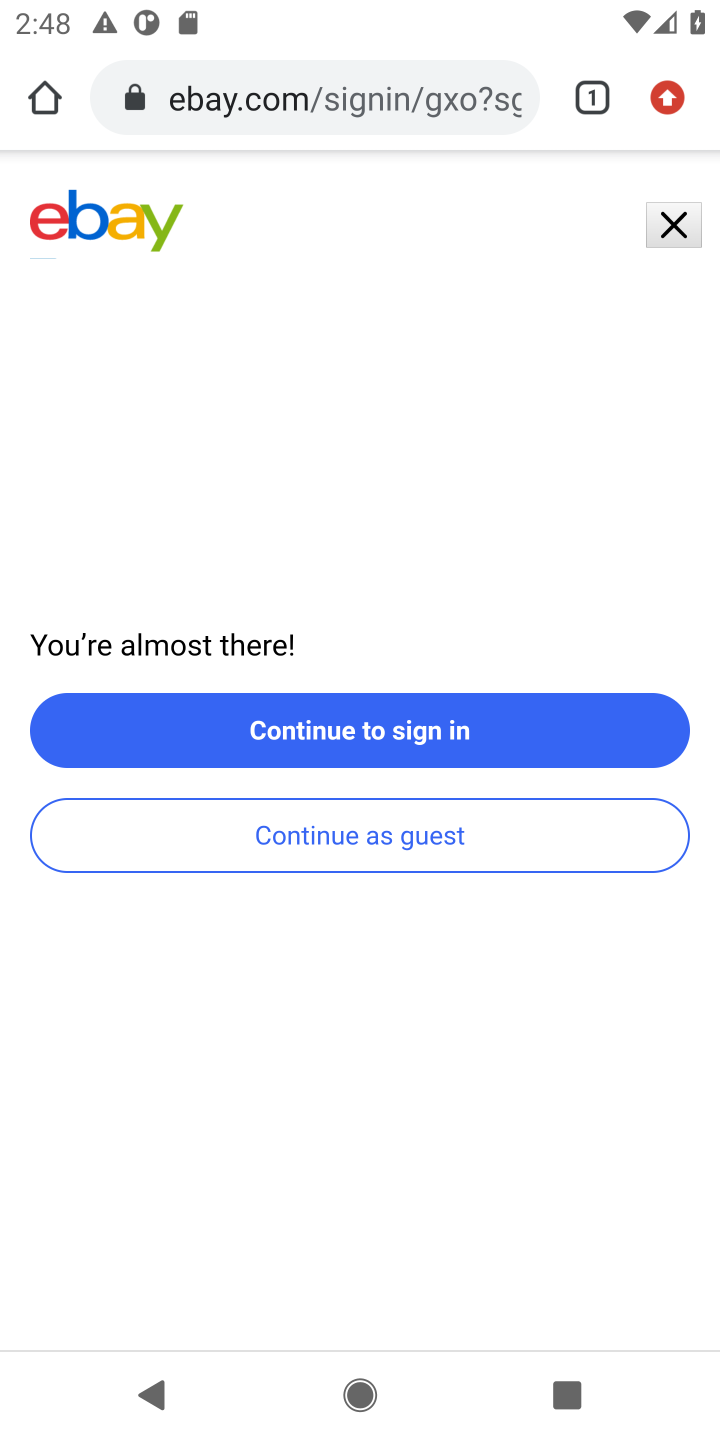
Step 28: task complete